Your task to perform on an android device: toggle pop-ups in chrome Image 0: 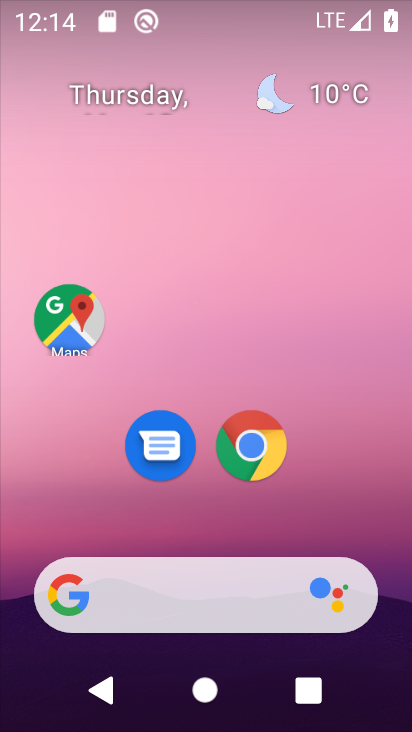
Step 0: click (246, 420)
Your task to perform on an android device: toggle pop-ups in chrome Image 1: 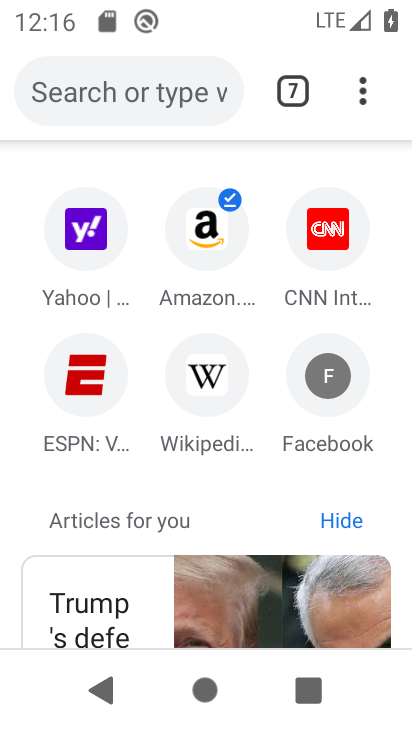
Step 1: click (364, 85)
Your task to perform on an android device: toggle pop-ups in chrome Image 2: 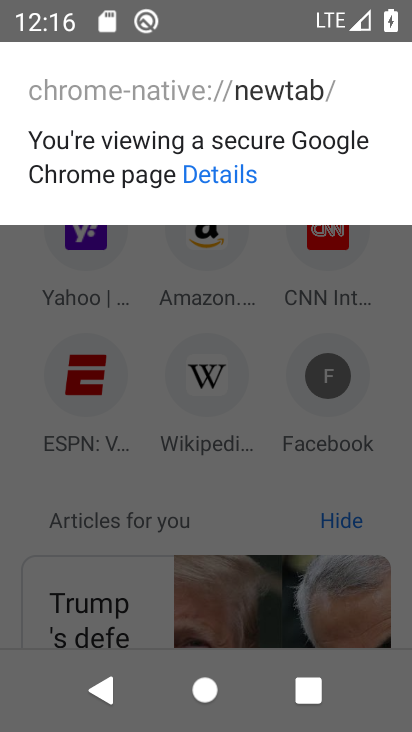
Step 2: click (364, 84)
Your task to perform on an android device: toggle pop-ups in chrome Image 3: 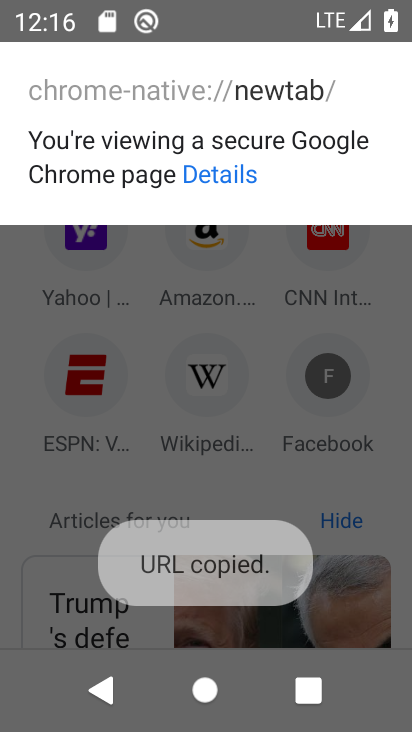
Step 3: click (331, 245)
Your task to perform on an android device: toggle pop-ups in chrome Image 4: 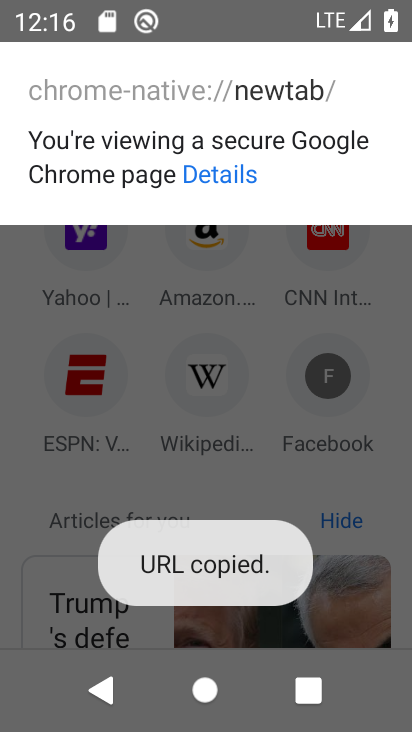
Step 4: click (277, 327)
Your task to perform on an android device: toggle pop-ups in chrome Image 5: 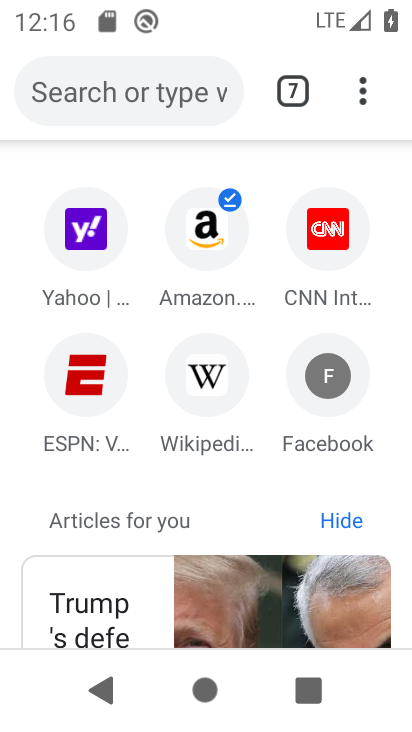
Step 5: drag from (360, 81) to (112, 474)
Your task to perform on an android device: toggle pop-ups in chrome Image 6: 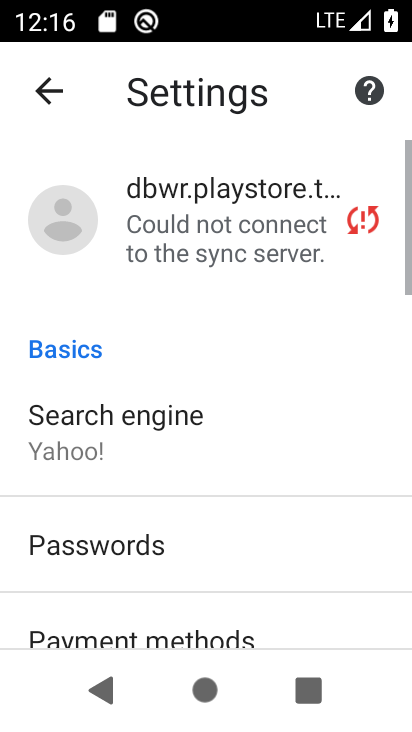
Step 6: drag from (194, 611) to (284, 13)
Your task to perform on an android device: toggle pop-ups in chrome Image 7: 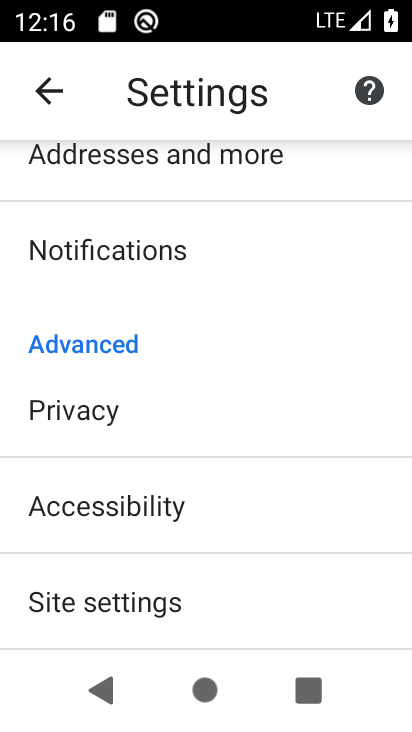
Step 7: click (123, 591)
Your task to perform on an android device: toggle pop-ups in chrome Image 8: 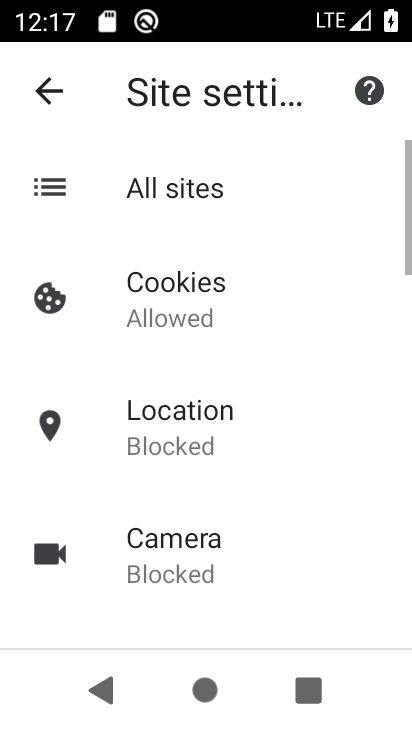
Step 8: drag from (150, 566) to (268, 68)
Your task to perform on an android device: toggle pop-ups in chrome Image 9: 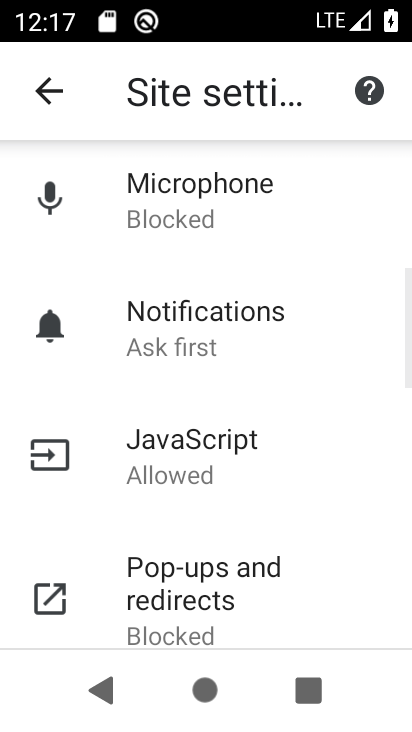
Step 9: click (174, 624)
Your task to perform on an android device: toggle pop-ups in chrome Image 10: 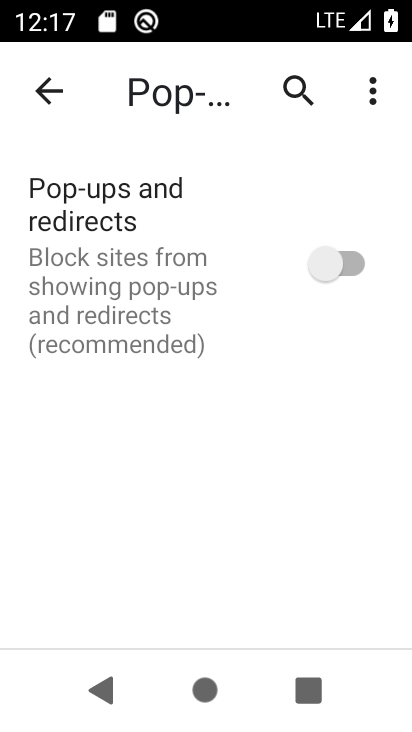
Step 10: click (337, 266)
Your task to perform on an android device: toggle pop-ups in chrome Image 11: 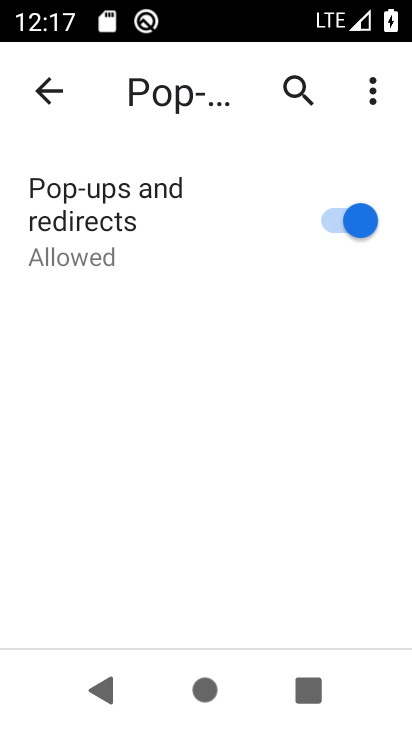
Step 11: task complete